Your task to perform on an android device: Open battery settings Image 0: 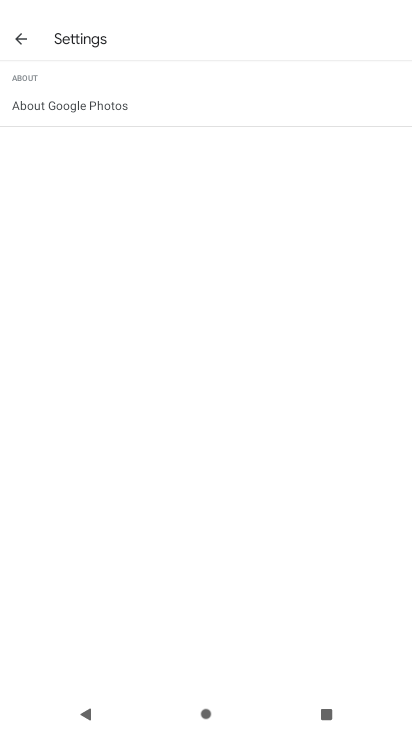
Step 0: press home button
Your task to perform on an android device: Open battery settings Image 1: 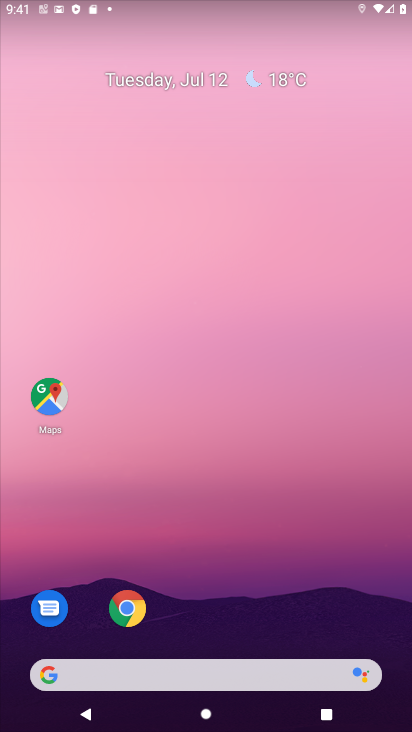
Step 1: drag from (228, 562) to (196, 146)
Your task to perform on an android device: Open battery settings Image 2: 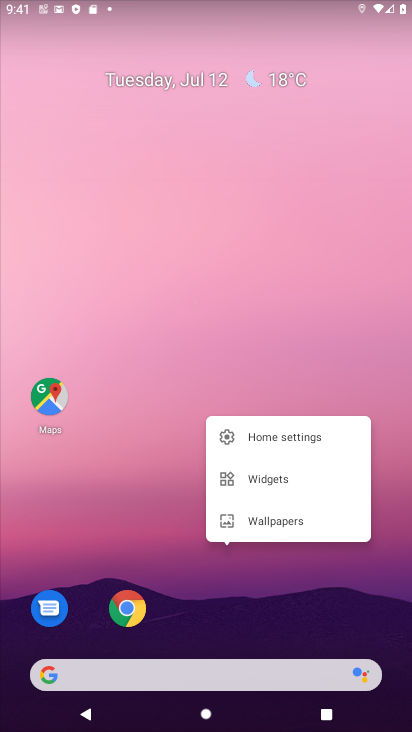
Step 2: click (162, 462)
Your task to perform on an android device: Open battery settings Image 3: 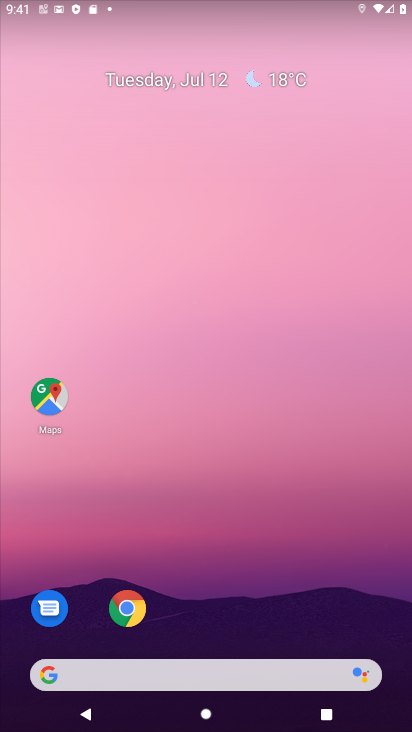
Step 3: drag from (242, 603) to (142, 109)
Your task to perform on an android device: Open battery settings Image 4: 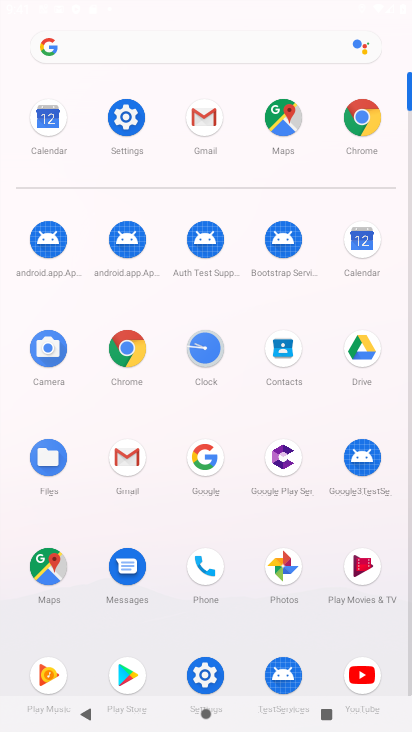
Step 4: click (128, 115)
Your task to perform on an android device: Open battery settings Image 5: 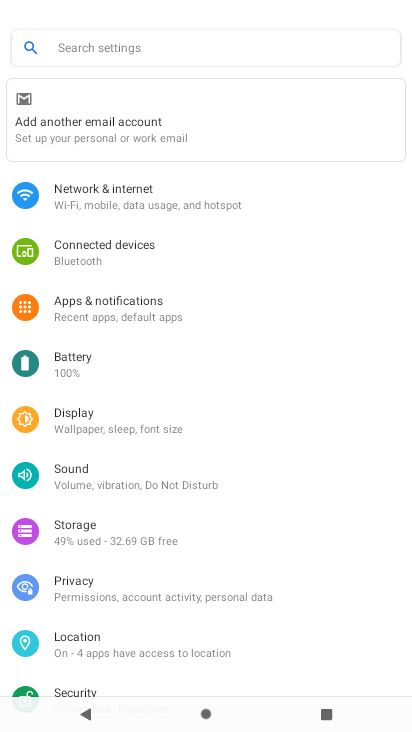
Step 5: click (71, 357)
Your task to perform on an android device: Open battery settings Image 6: 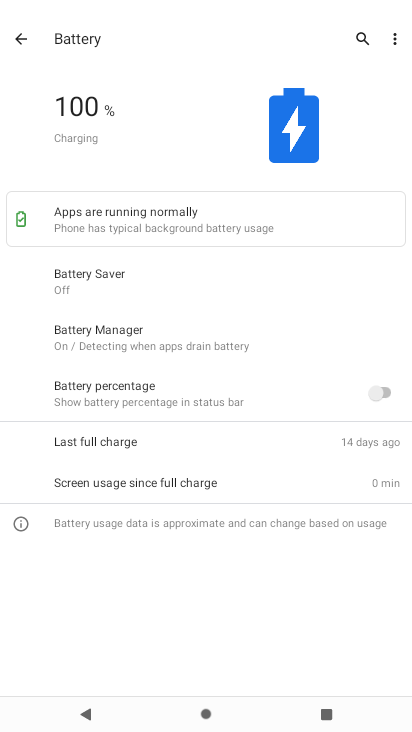
Step 6: task complete